Your task to perform on an android device: move an email to a new category in the gmail app Image 0: 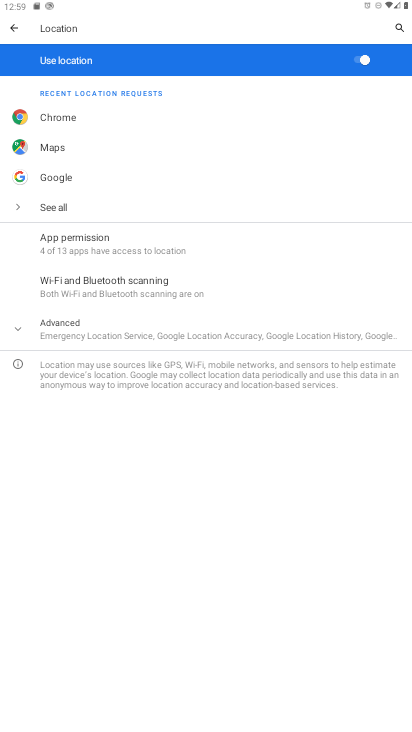
Step 0: press home button
Your task to perform on an android device: move an email to a new category in the gmail app Image 1: 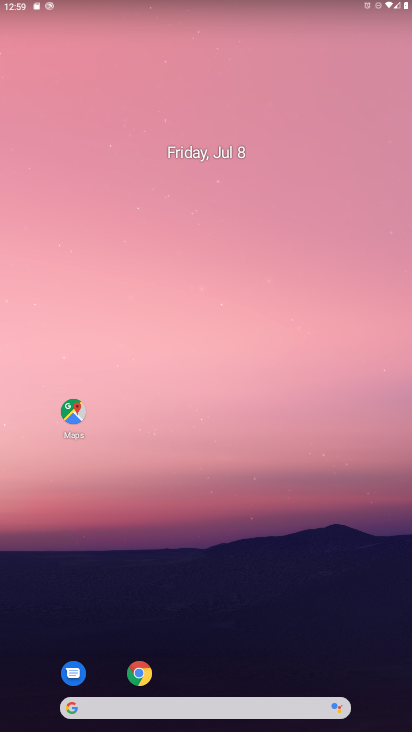
Step 1: drag from (375, 596) to (293, 64)
Your task to perform on an android device: move an email to a new category in the gmail app Image 2: 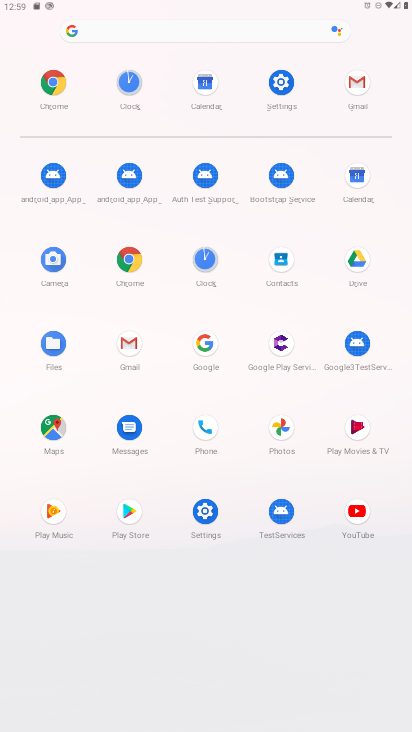
Step 2: click (133, 334)
Your task to perform on an android device: move an email to a new category in the gmail app Image 3: 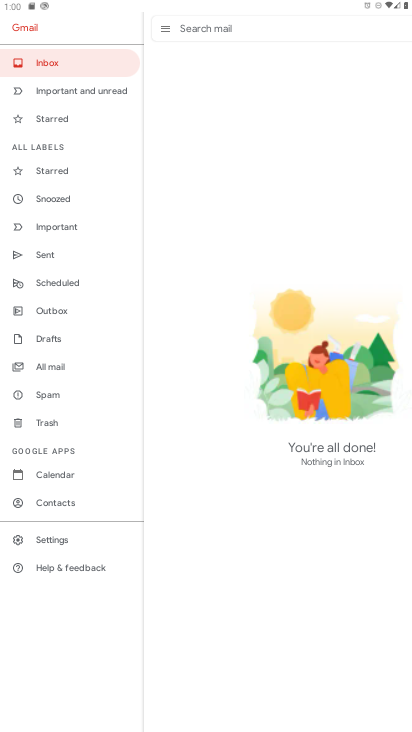
Step 3: task complete